Your task to perform on an android device: Open Maps and search for coffee Image 0: 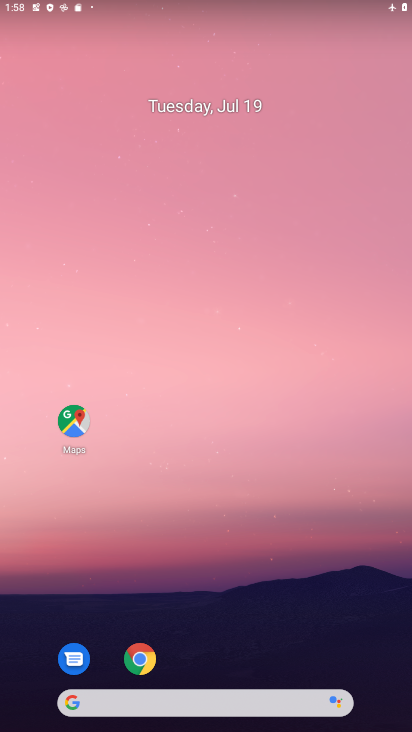
Step 0: press home button
Your task to perform on an android device: Open Maps and search for coffee Image 1: 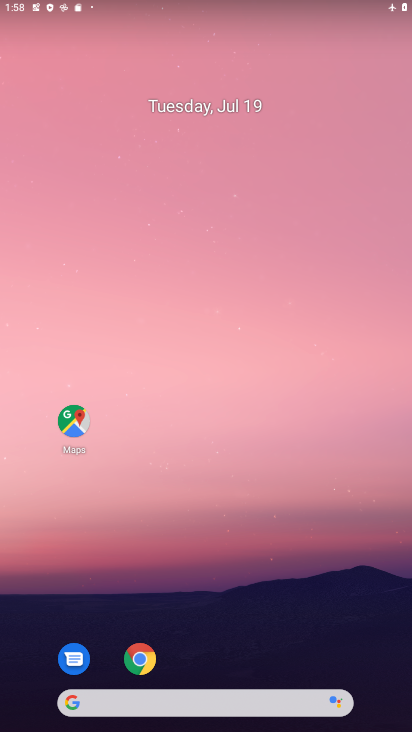
Step 1: click (336, 639)
Your task to perform on an android device: Open Maps and search for coffee Image 2: 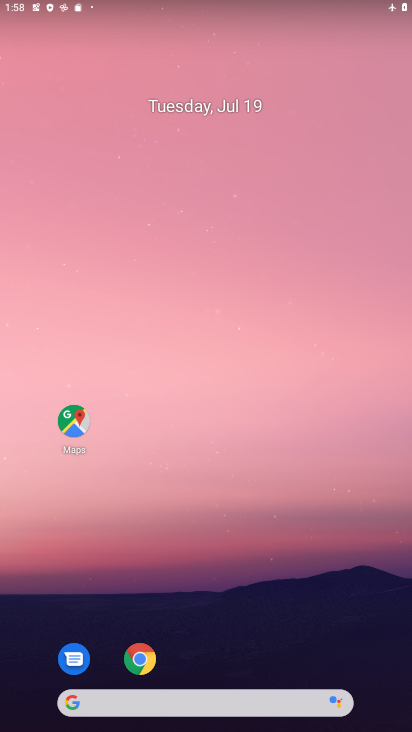
Step 2: click (57, 415)
Your task to perform on an android device: Open Maps and search for coffee Image 3: 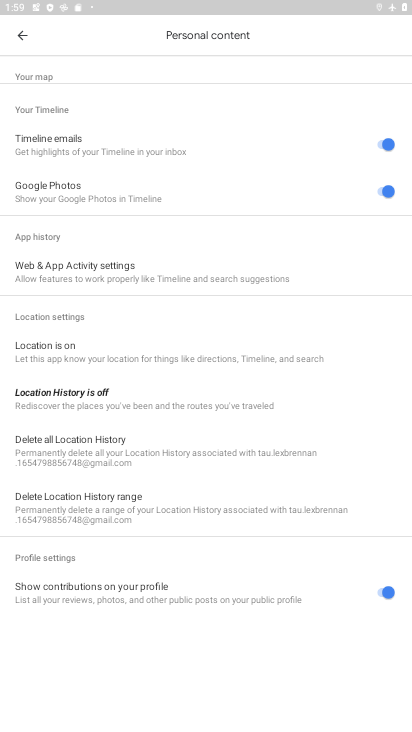
Step 3: click (20, 38)
Your task to perform on an android device: Open Maps and search for coffee Image 4: 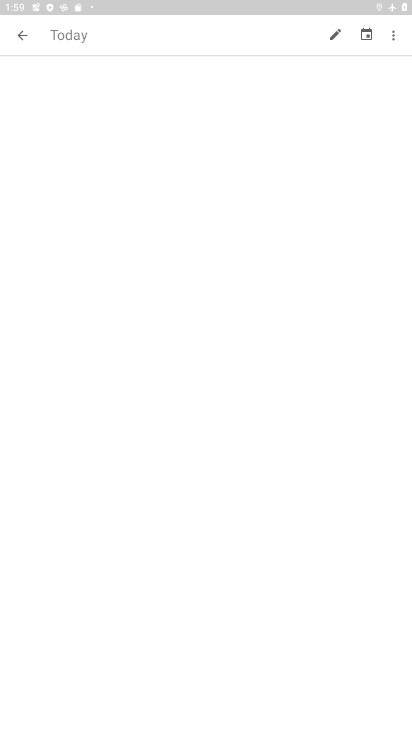
Step 4: click (20, 38)
Your task to perform on an android device: Open Maps and search for coffee Image 5: 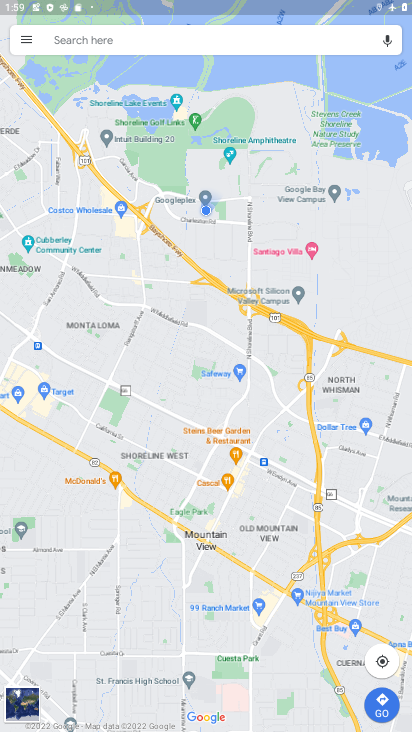
Step 5: click (96, 35)
Your task to perform on an android device: Open Maps and search for coffee Image 6: 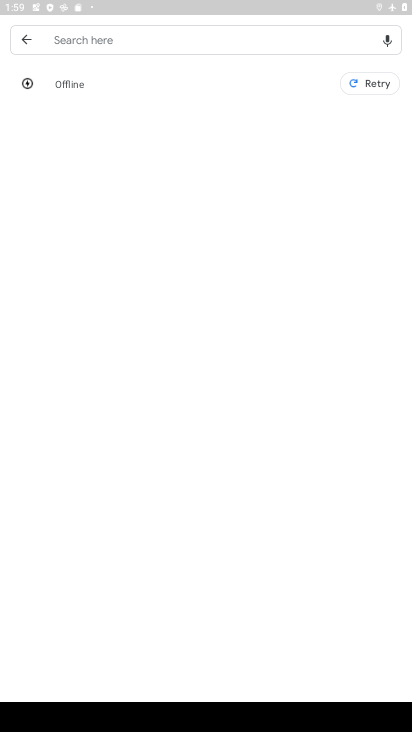
Step 6: drag from (361, 39) to (339, 597)
Your task to perform on an android device: Open Maps and search for coffee Image 7: 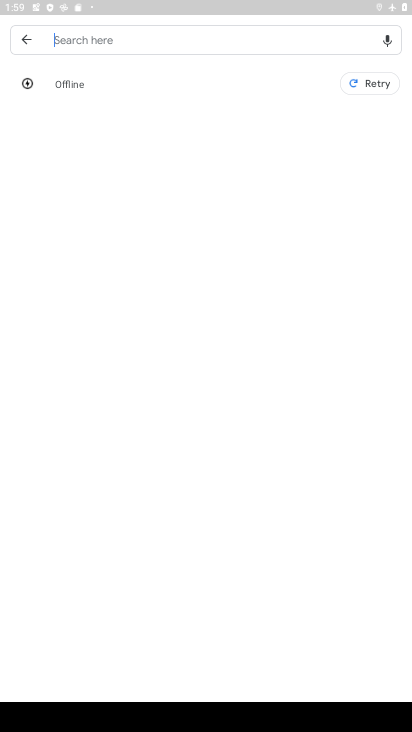
Step 7: drag from (390, 3) to (360, 486)
Your task to perform on an android device: Open Maps and search for coffee Image 8: 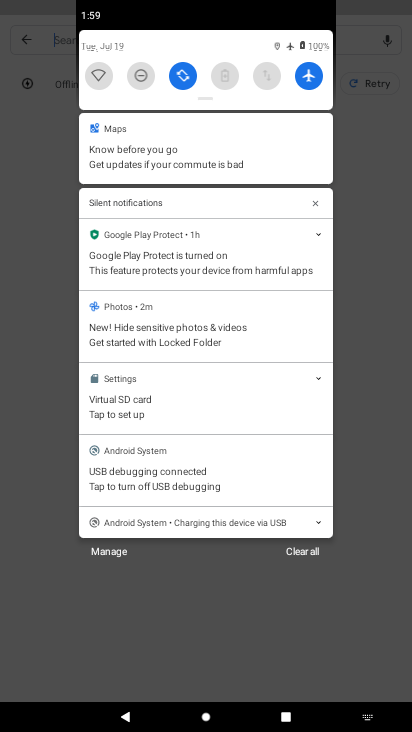
Step 8: click (315, 74)
Your task to perform on an android device: Open Maps and search for coffee Image 9: 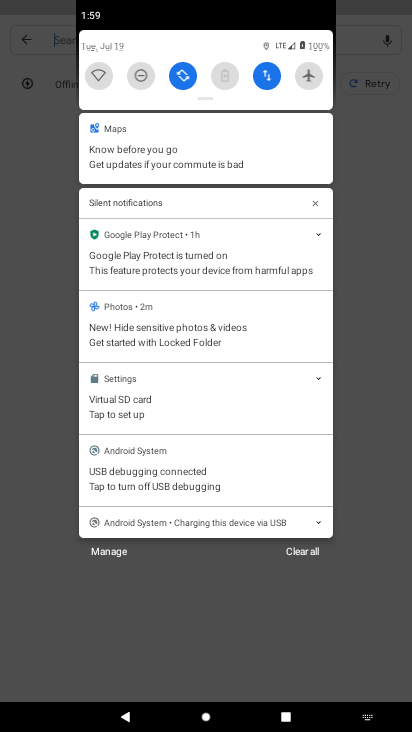
Step 9: drag from (348, 626) to (273, 7)
Your task to perform on an android device: Open Maps and search for coffee Image 10: 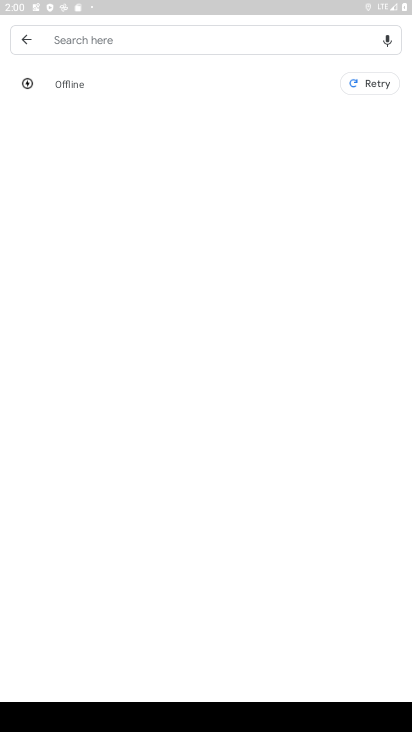
Step 10: type "coffee"
Your task to perform on an android device: Open Maps and search for coffee Image 11: 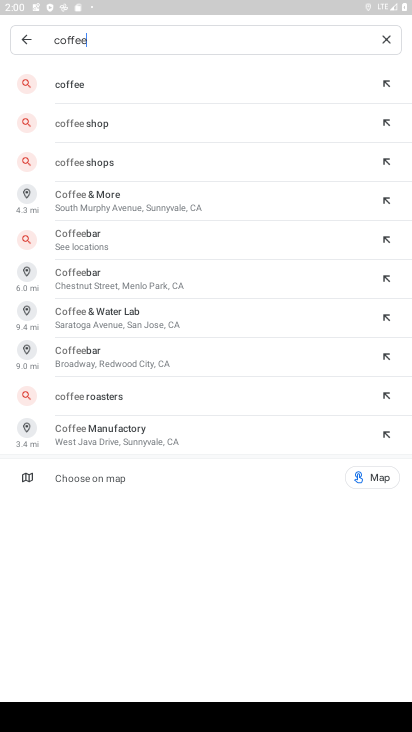
Step 11: click (76, 79)
Your task to perform on an android device: Open Maps and search for coffee Image 12: 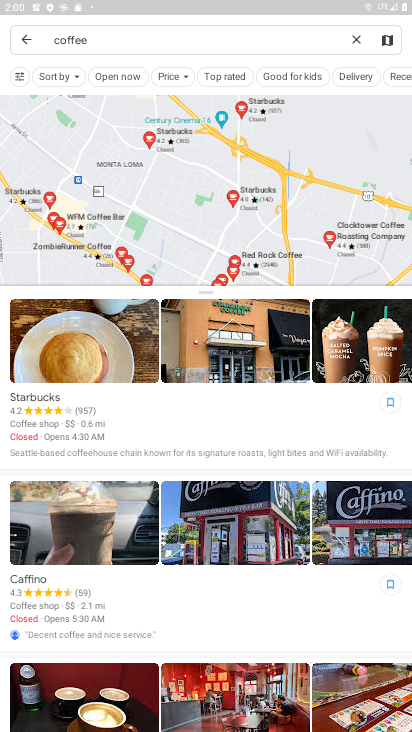
Step 12: task complete